Your task to perform on an android device: turn off location history Image 0: 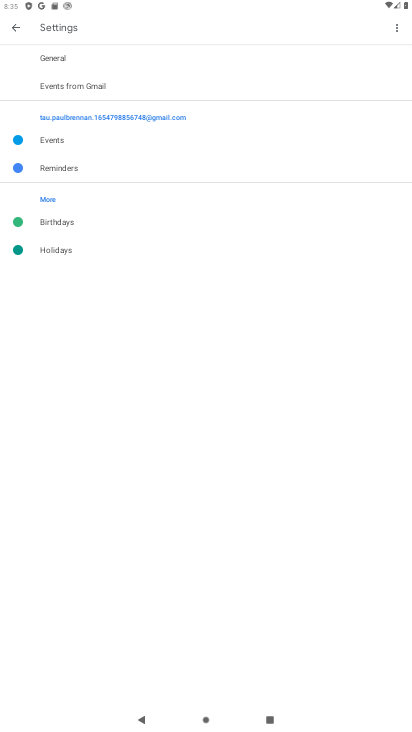
Step 0: press home button
Your task to perform on an android device: turn off location history Image 1: 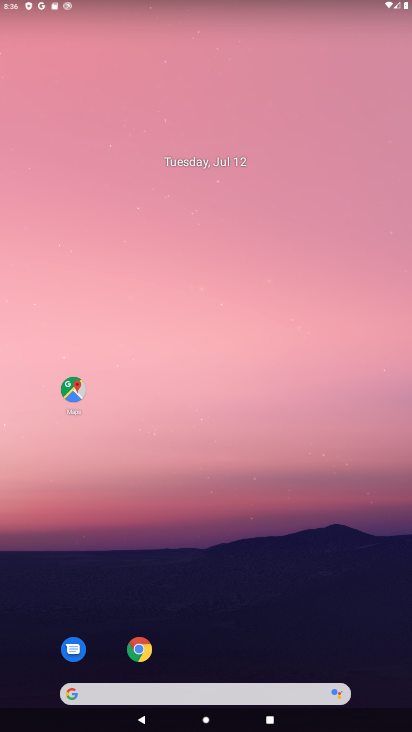
Step 1: drag from (281, 658) to (279, 33)
Your task to perform on an android device: turn off location history Image 2: 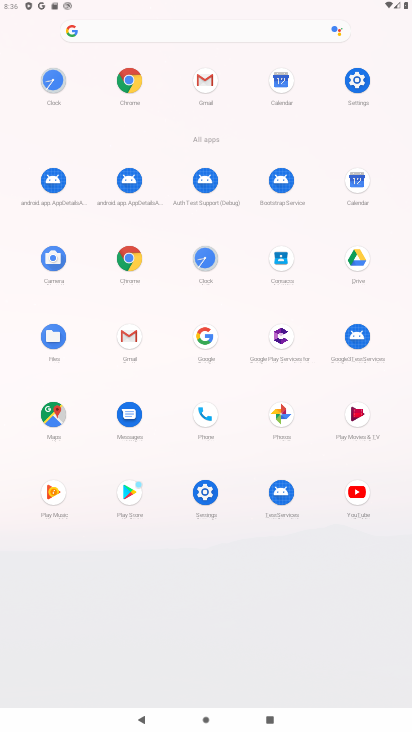
Step 2: click (350, 72)
Your task to perform on an android device: turn off location history Image 3: 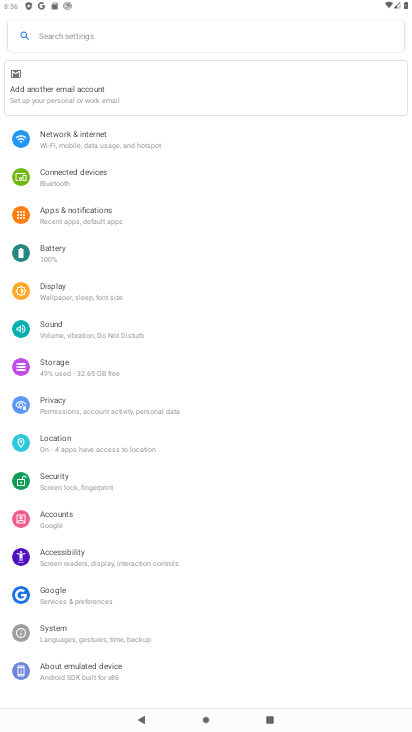
Step 3: click (68, 439)
Your task to perform on an android device: turn off location history Image 4: 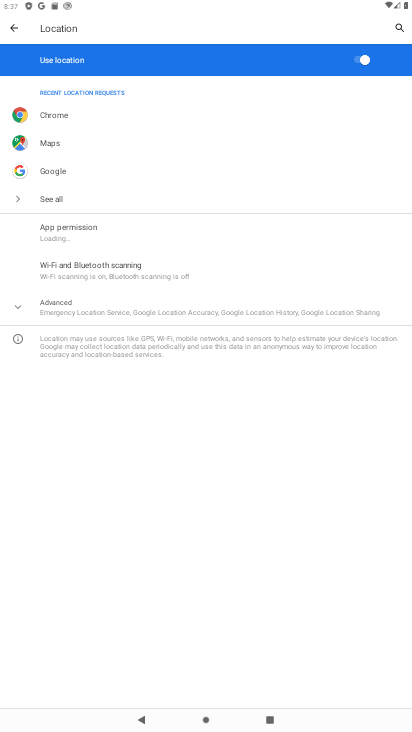
Step 4: click (141, 311)
Your task to perform on an android device: turn off location history Image 5: 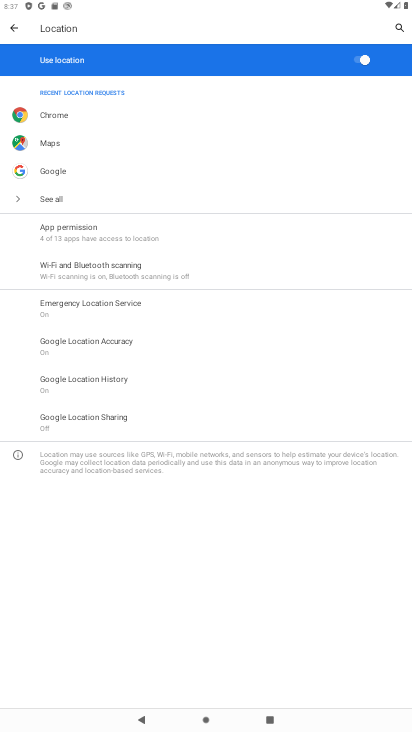
Step 5: click (133, 382)
Your task to perform on an android device: turn off location history Image 6: 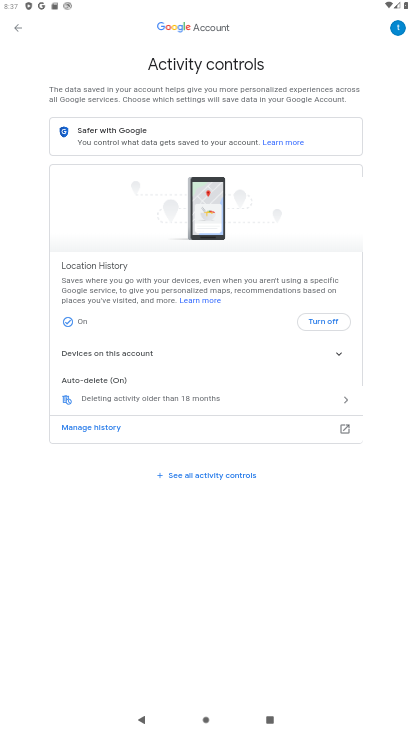
Step 6: click (333, 324)
Your task to perform on an android device: turn off location history Image 7: 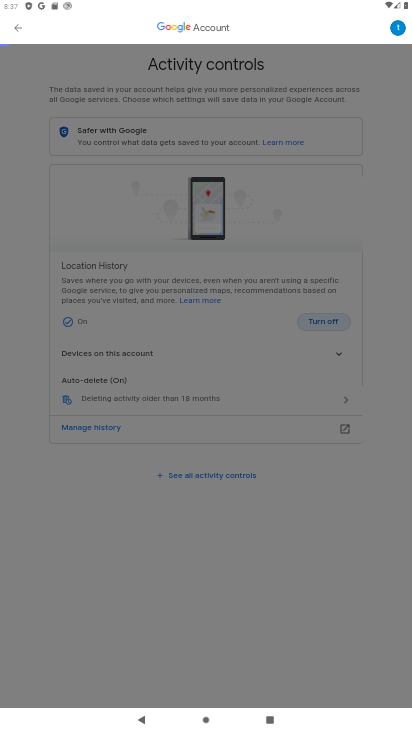
Step 7: task complete